Your task to perform on an android device: Open the calendar and show me this week's events Image 0: 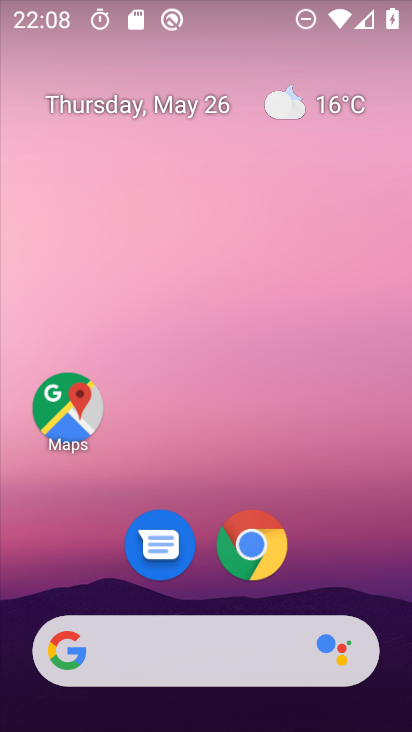
Step 0: drag from (325, 490) to (324, 133)
Your task to perform on an android device: Open the calendar and show me this week's events Image 1: 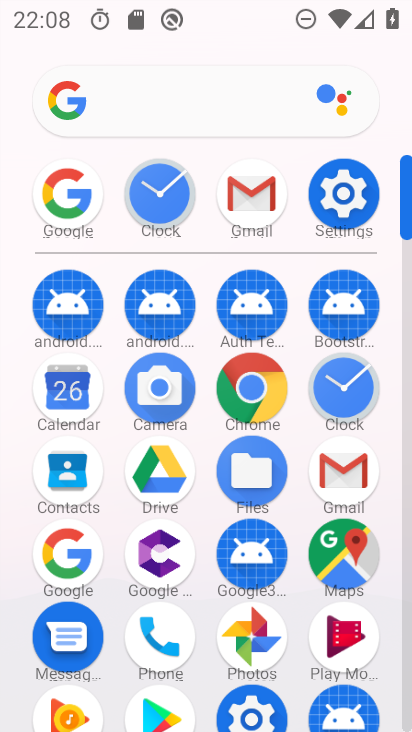
Step 1: click (70, 393)
Your task to perform on an android device: Open the calendar and show me this week's events Image 2: 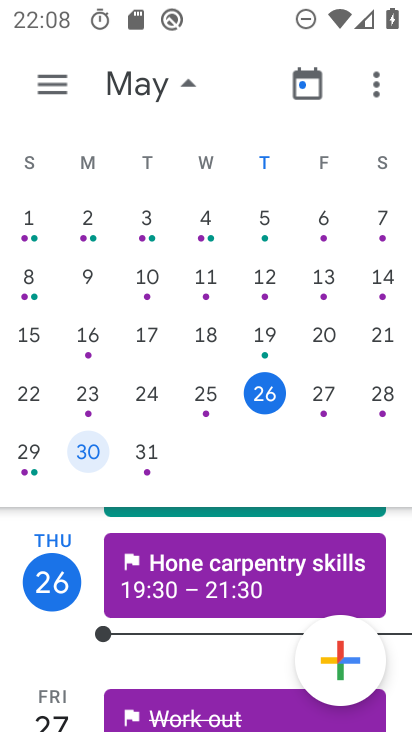
Step 2: click (329, 394)
Your task to perform on an android device: Open the calendar and show me this week's events Image 3: 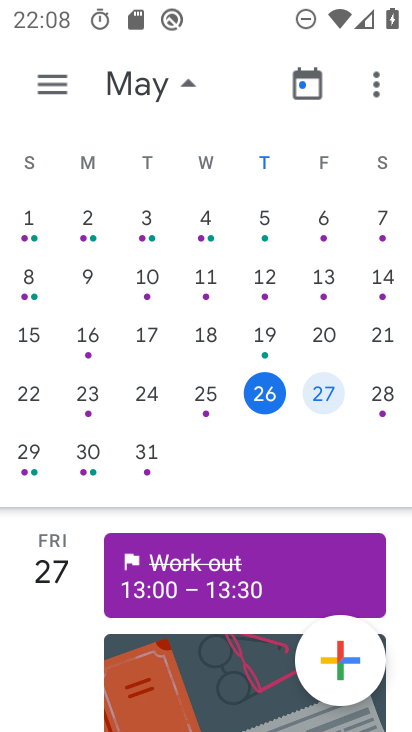
Step 3: task complete